Your task to perform on an android device: delete a single message in the gmail app Image 0: 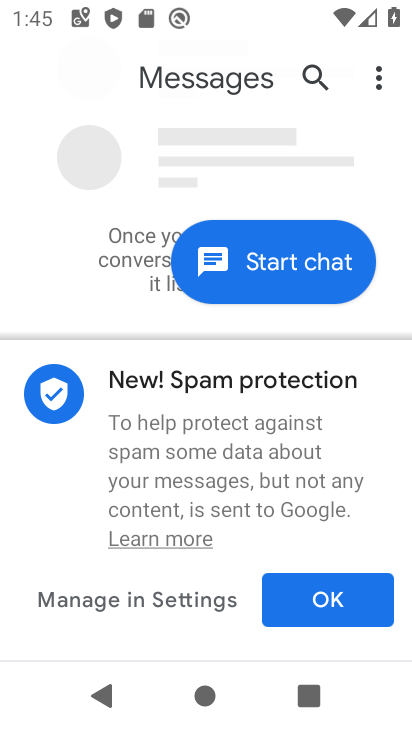
Step 0: press home button
Your task to perform on an android device: delete a single message in the gmail app Image 1: 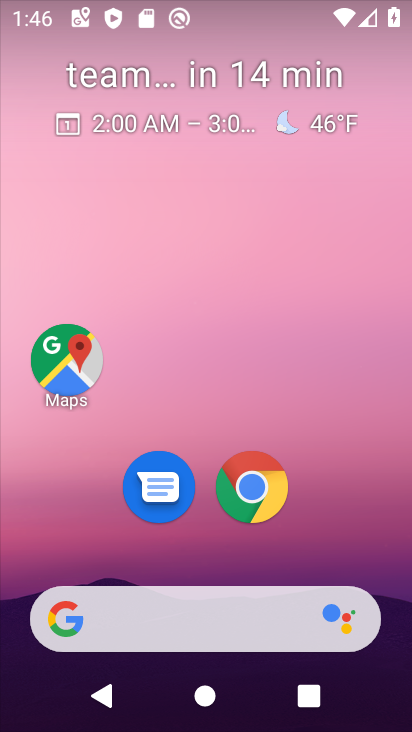
Step 1: drag from (363, 525) to (244, 100)
Your task to perform on an android device: delete a single message in the gmail app Image 2: 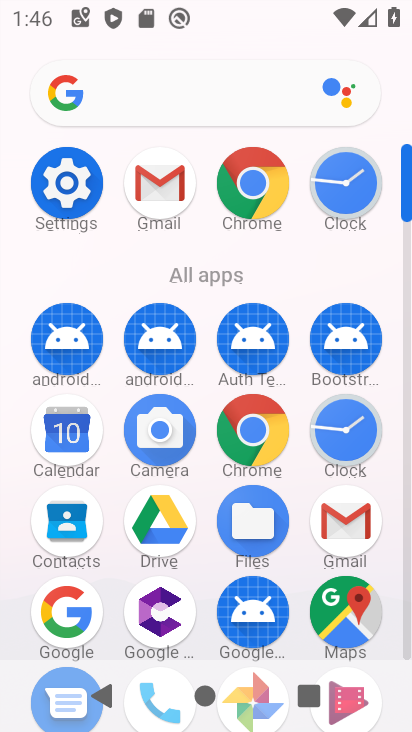
Step 2: click (146, 185)
Your task to perform on an android device: delete a single message in the gmail app Image 3: 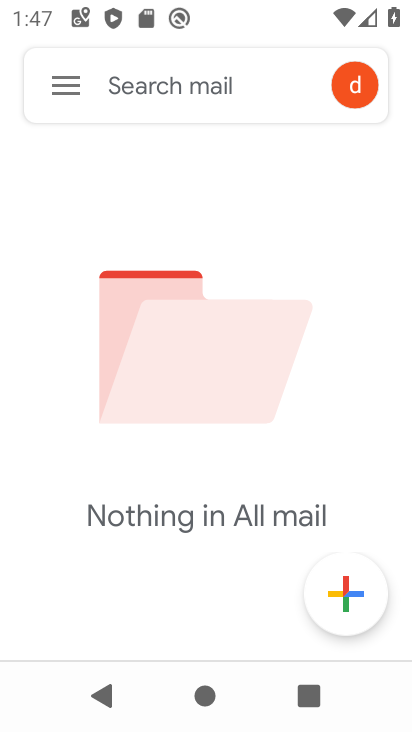
Step 3: task complete